Your task to perform on an android device: What is the news today? Image 0: 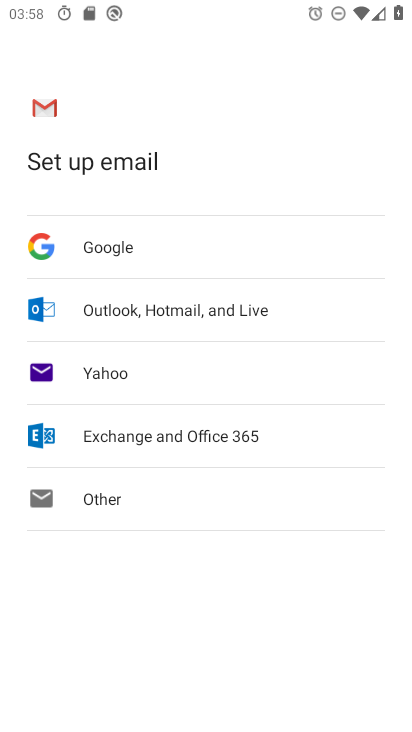
Step 0: press home button
Your task to perform on an android device: What is the news today? Image 1: 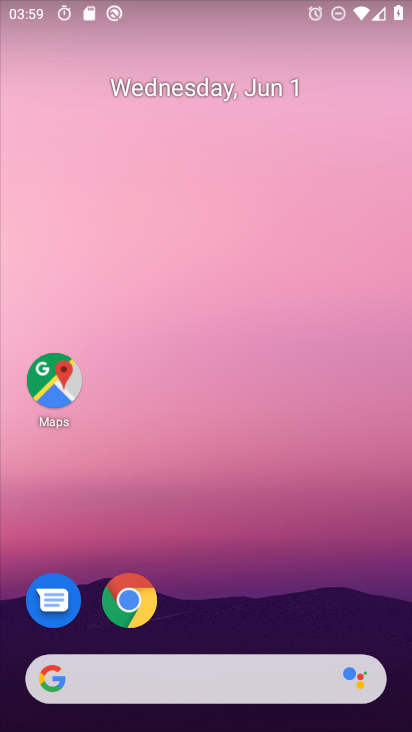
Step 1: click (164, 668)
Your task to perform on an android device: What is the news today? Image 2: 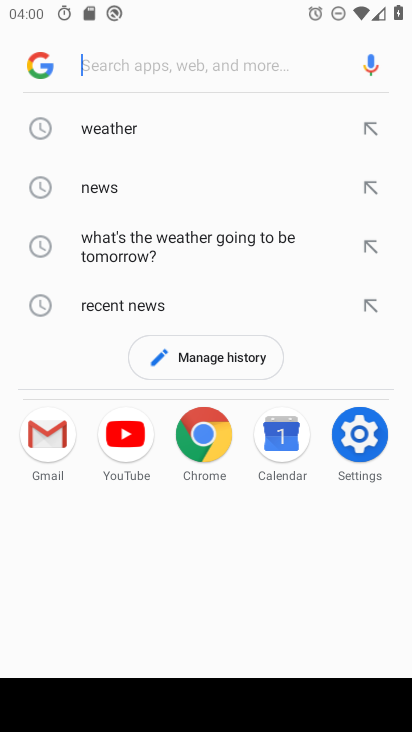
Step 2: click (135, 68)
Your task to perform on an android device: What is the news today? Image 3: 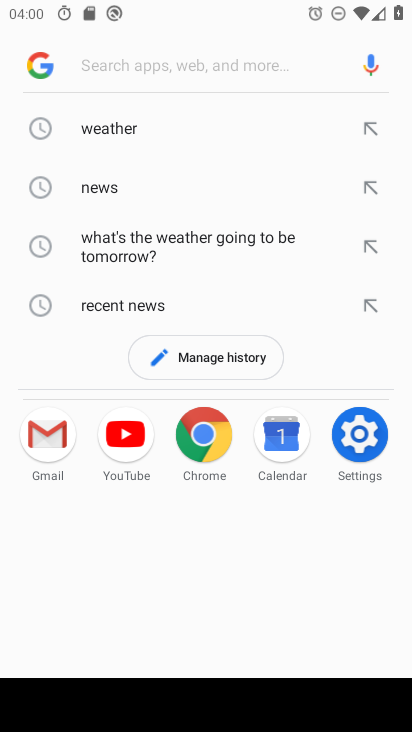
Step 3: type "news today"
Your task to perform on an android device: What is the news today? Image 4: 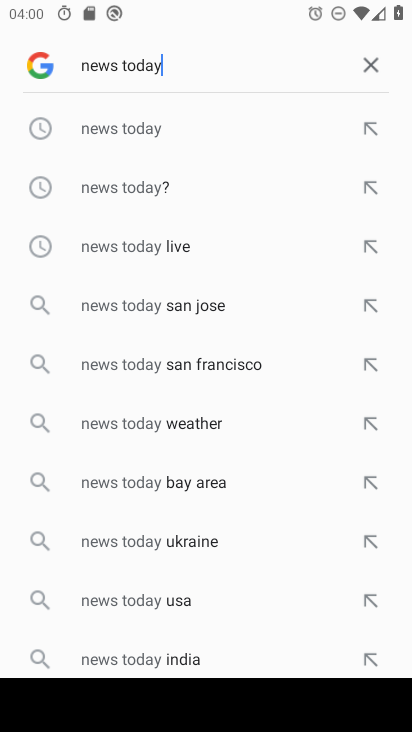
Step 4: click (104, 137)
Your task to perform on an android device: What is the news today? Image 5: 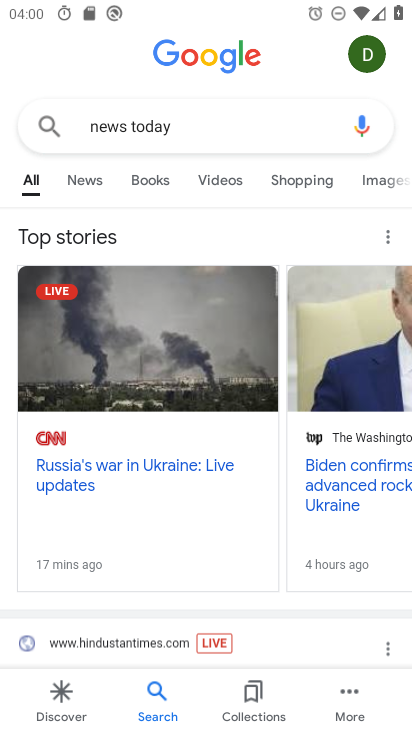
Step 5: task complete